Your task to perform on an android device: Open the web browser Image 0: 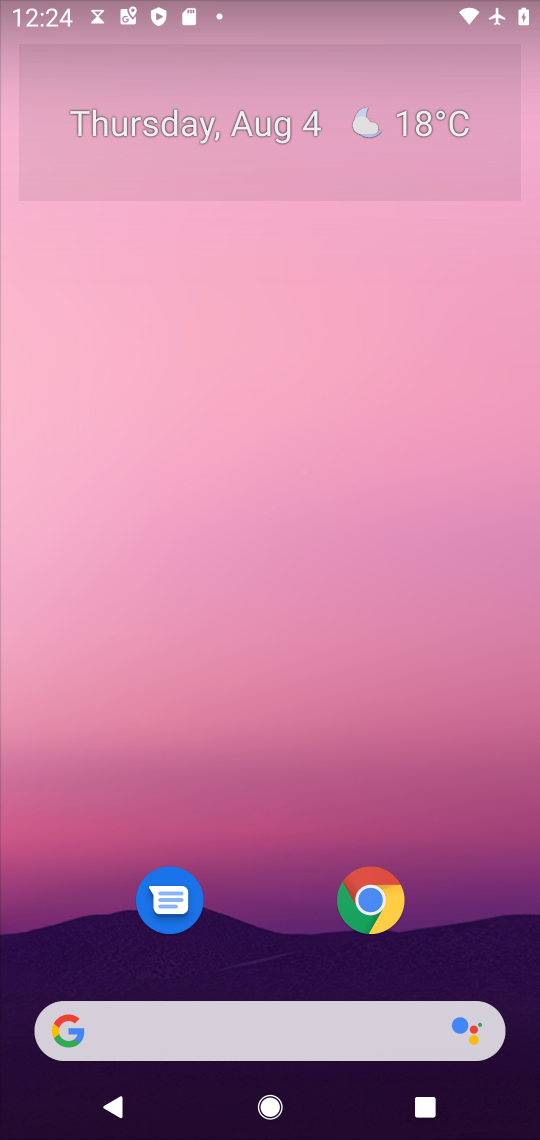
Step 0: press home button
Your task to perform on an android device: Open the web browser Image 1: 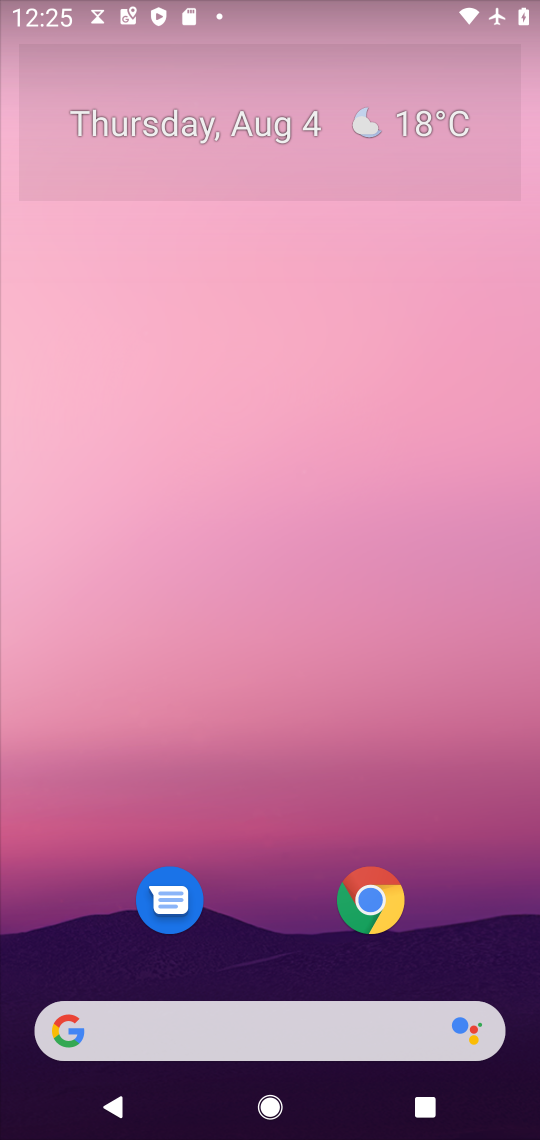
Step 1: click (53, 1025)
Your task to perform on an android device: Open the web browser Image 2: 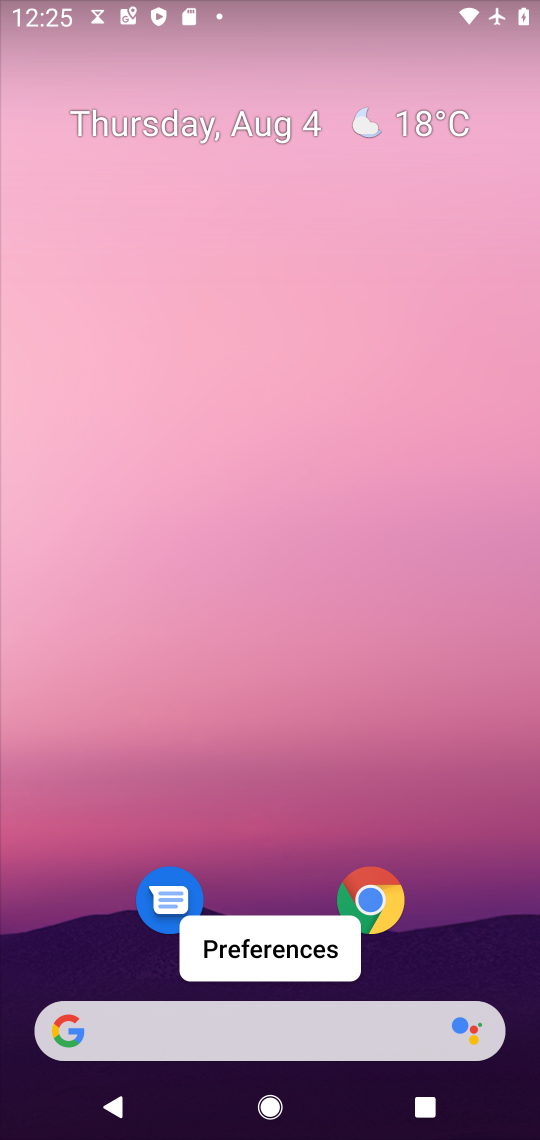
Step 2: click (70, 1022)
Your task to perform on an android device: Open the web browser Image 3: 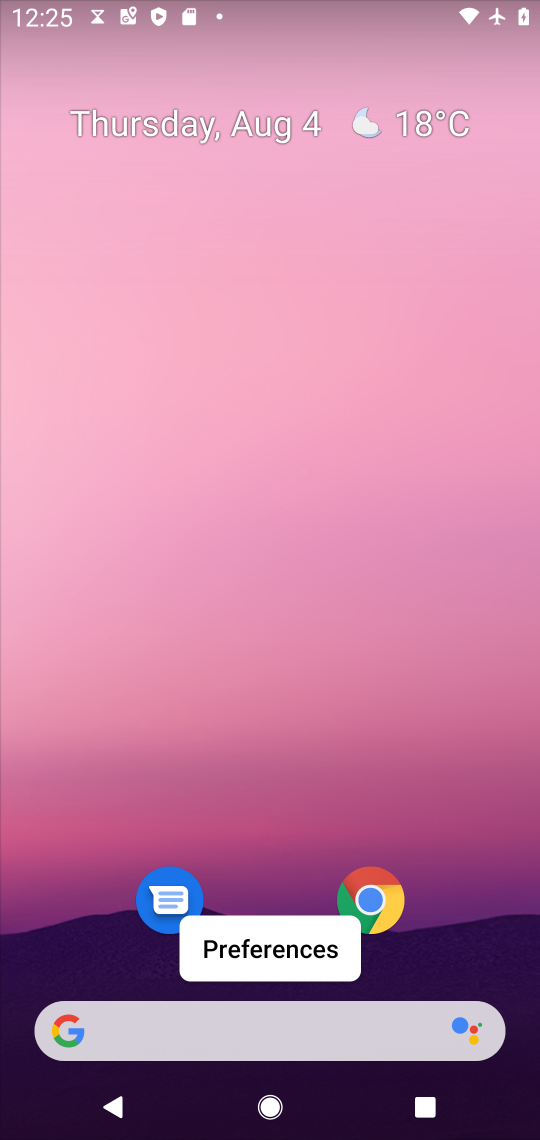
Step 3: click (69, 1043)
Your task to perform on an android device: Open the web browser Image 4: 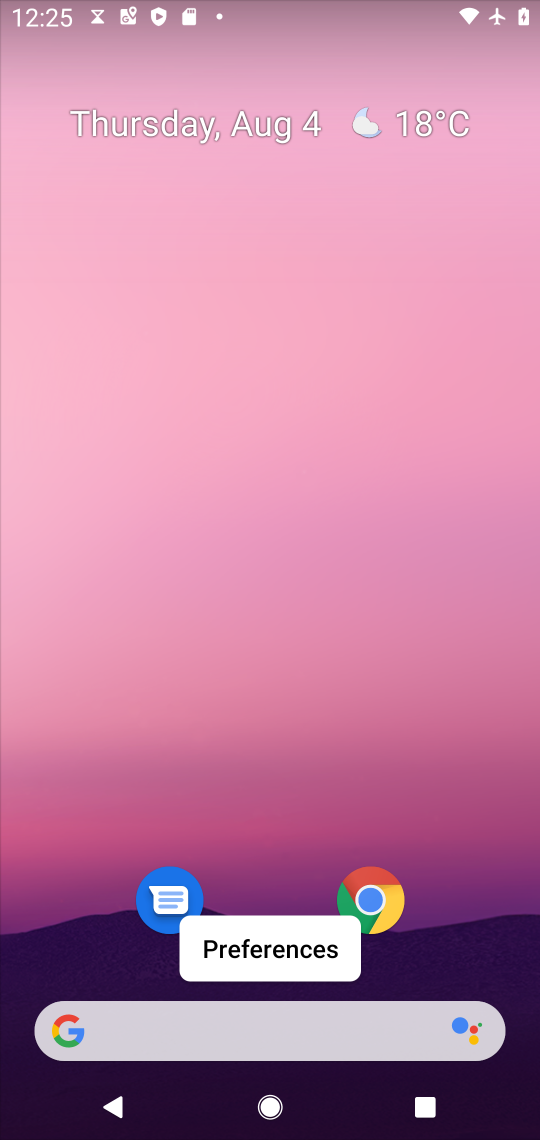
Step 4: click (72, 1038)
Your task to perform on an android device: Open the web browser Image 5: 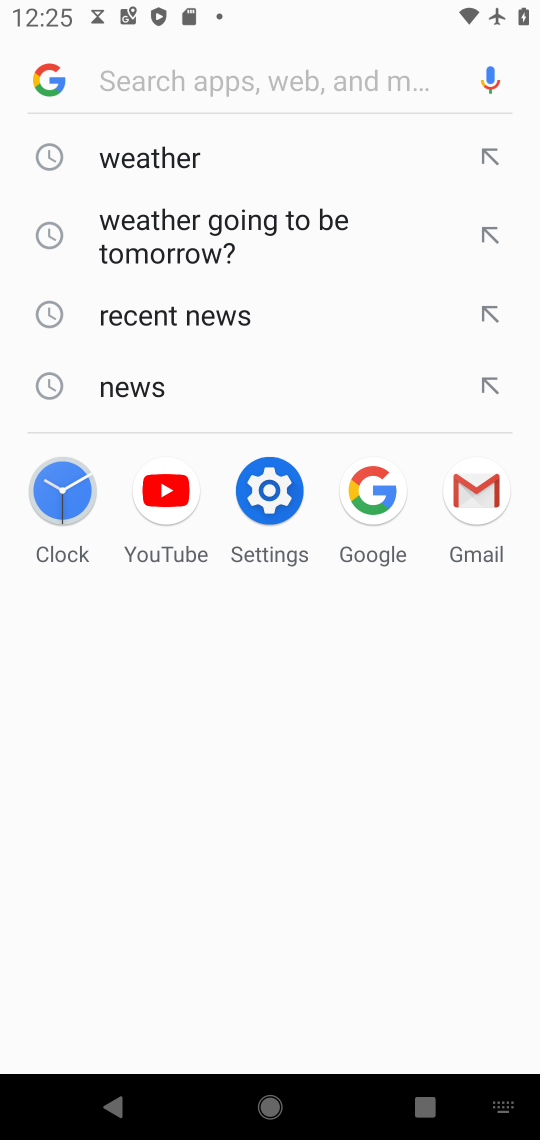
Step 5: task complete